Your task to perform on an android device: Open the phone app and click the voicemail tab. Image 0: 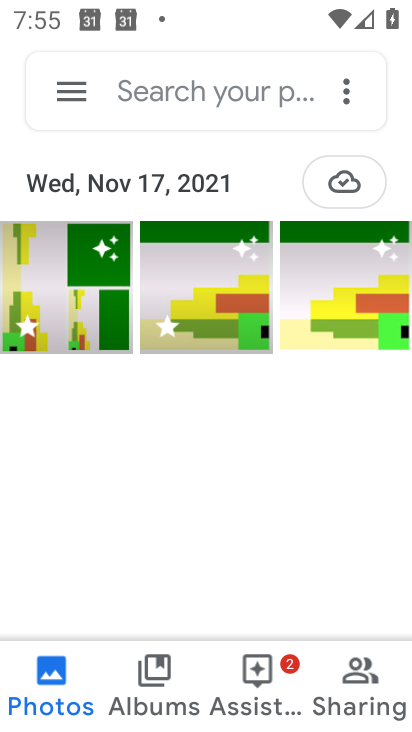
Step 0: press home button
Your task to perform on an android device: Open the phone app and click the voicemail tab. Image 1: 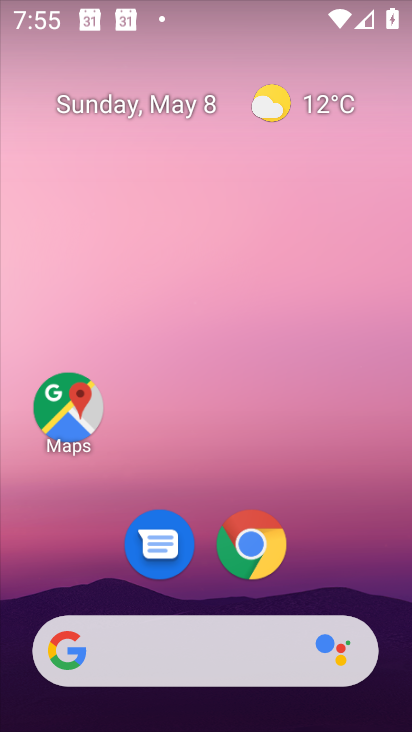
Step 1: drag from (350, 568) to (128, 18)
Your task to perform on an android device: Open the phone app and click the voicemail tab. Image 2: 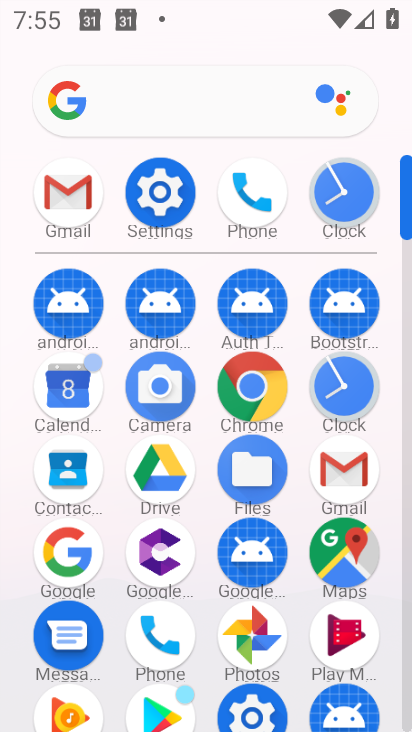
Step 2: click (153, 632)
Your task to perform on an android device: Open the phone app and click the voicemail tab. Image 3: 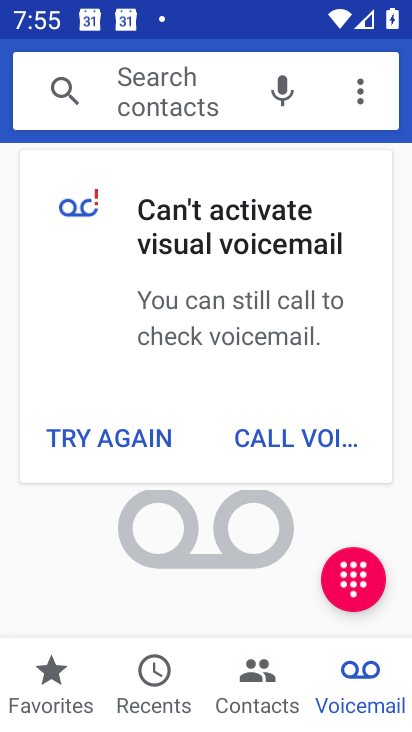
Step 3: click (353, 672)
Your task to perform on an android device: Open the phone app and click the voicemail tab. Image 4: 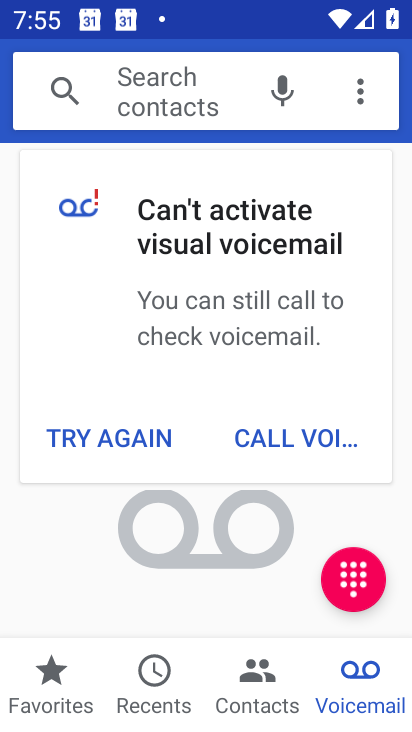
Step 4: task complete